Your task to perform on an android device: turn on wifi Image 0: 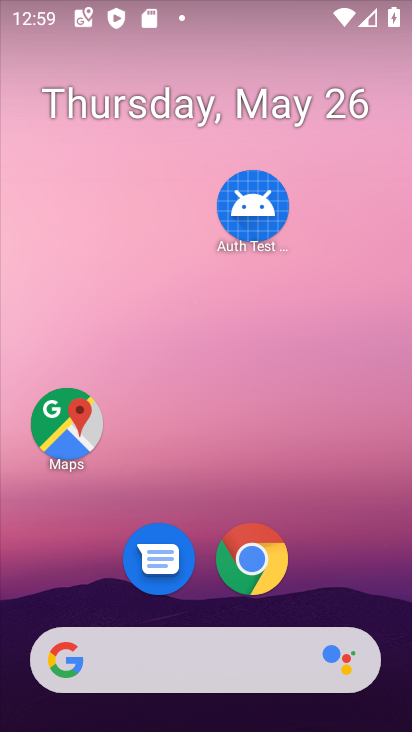
Step 0: drag from (348, 4) to (317, 544)
Your task to perform on an android device: turn on wifi Image 1: 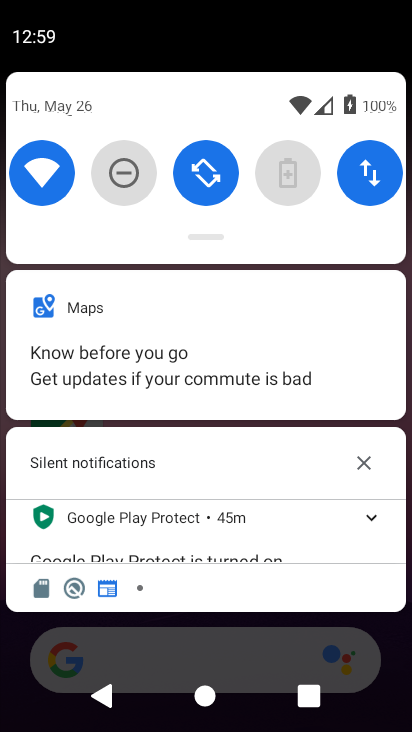
Step 1: task complete